Your task to perform on an android device: What's on my calendar tomorrow? Image 0: 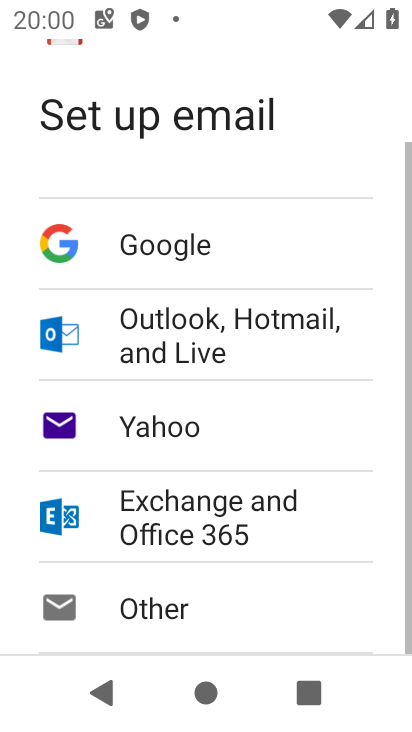
Step 0: press home button
Your task to perform on an android device: What's on my calendar tomorrow? Image 1: 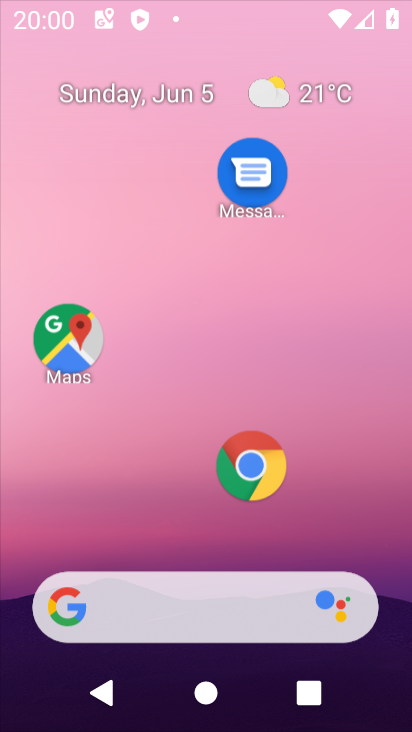
Step 1: drag from (224, 603) to (326, 246)
Your task to perform on an android device: What's on my calendar tomorrow? Image 2: 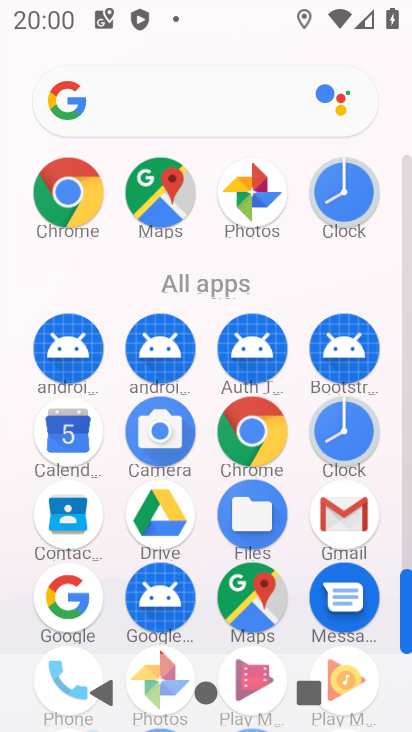
Step 2: click (70, 448)
Your task to perform on an android device: What's on my calendar tomorrow? Image 3: 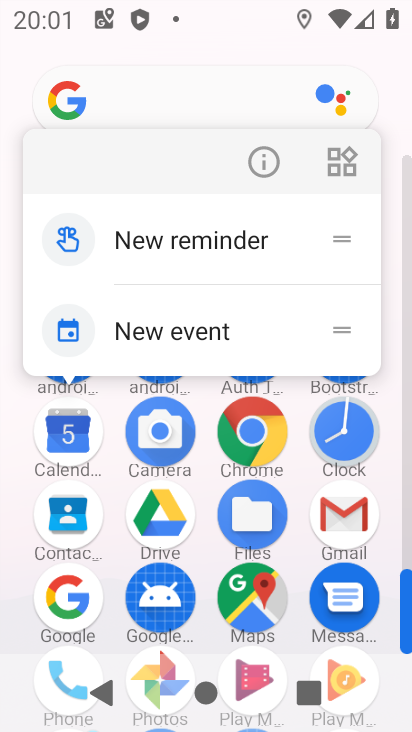
Step 3: click (278, 166)
Your task to perform on an android device: What's on my calendar tomorrow? Image 4: 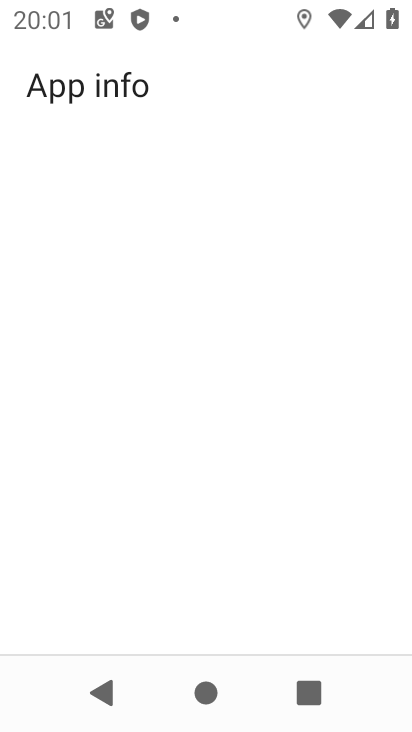
Step 4: drag from (191, 580) to (270, 105)
Your task to perform on an android device: What's on my calendar tomorrow? Image 5: 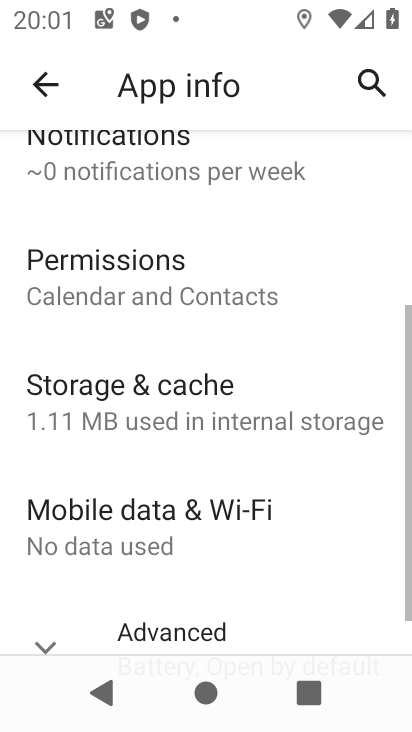
Step 5: drag from (95, 329) to (282, 701)
Your task to perform on an android device: What's on my calendar tomorrow? Image 6: 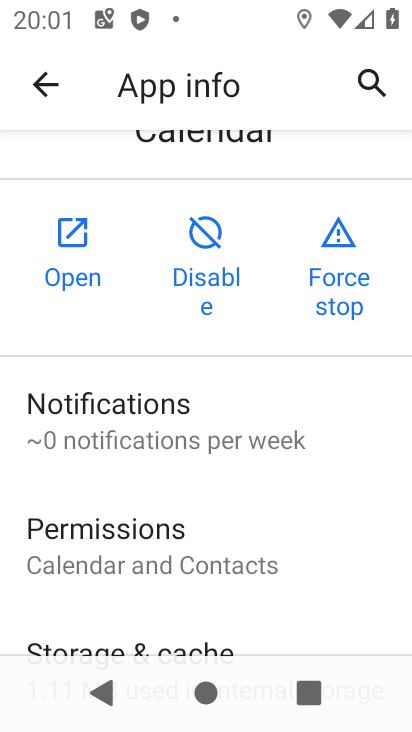
Step 6: click (90, 274)
Your task to perform on an android device: What's on my calendar tomorrow? Image 7: 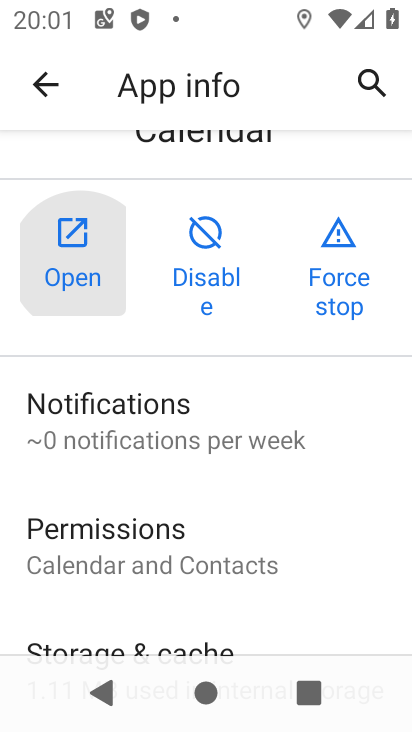
Step 7: click (90, 274)
Your task to perform on an android device: What's on my calendar tomorrow? Image 8: 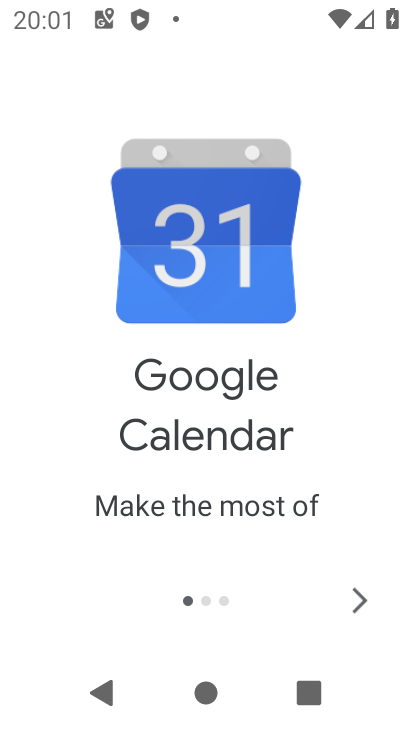
Step 8: click (352, 606)
Your task to perform on an android device: What's on my calendar tomorrow? Image 9: 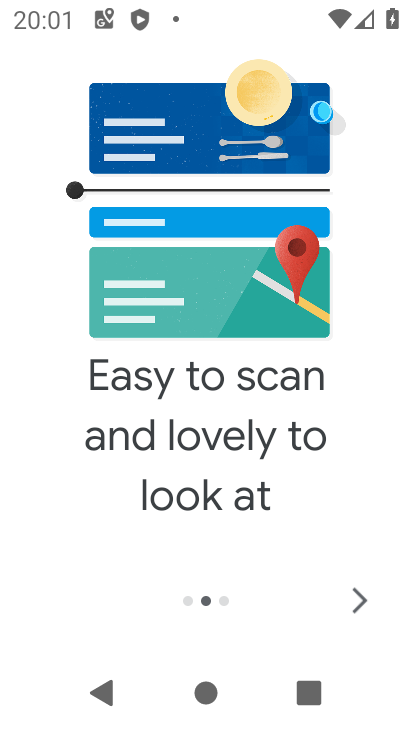
Step 9: click (361, 593)
Your task to perform on an android device: What's on my calendar tomorrow? Image 10: 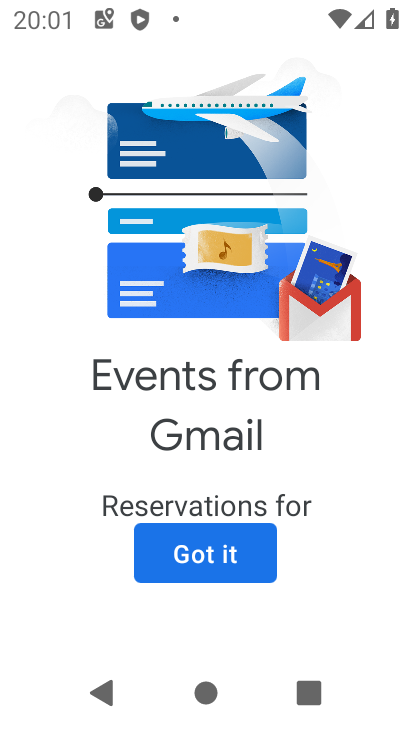
Step 10: click (358, 589)
Your task to perform on an android device: What's on my calendar tomorrow? Image 11: 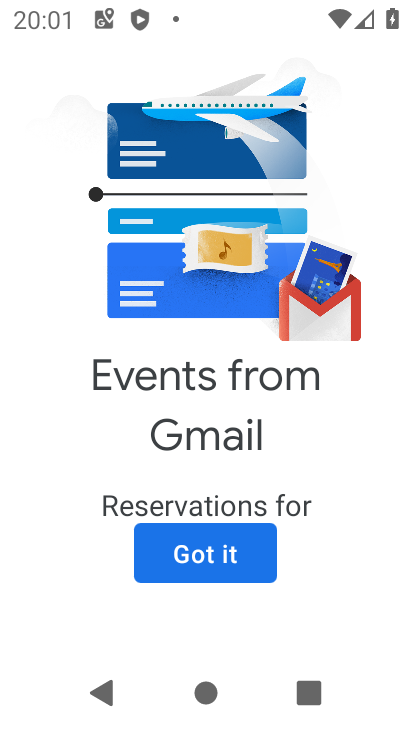
Step 11: click (263, 555)
Your task to perform on an android device: What's on my calendar tomorrow? Image 12: 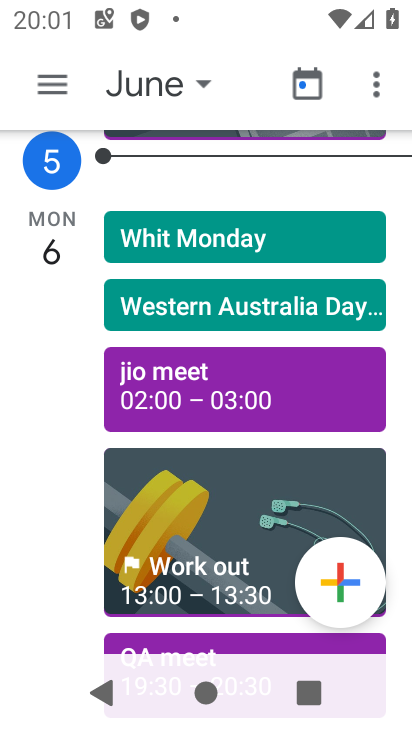
Step 12: click (150, 114)
Your task to perform on an android device: What's on my calendar tomorrow? Image 13: 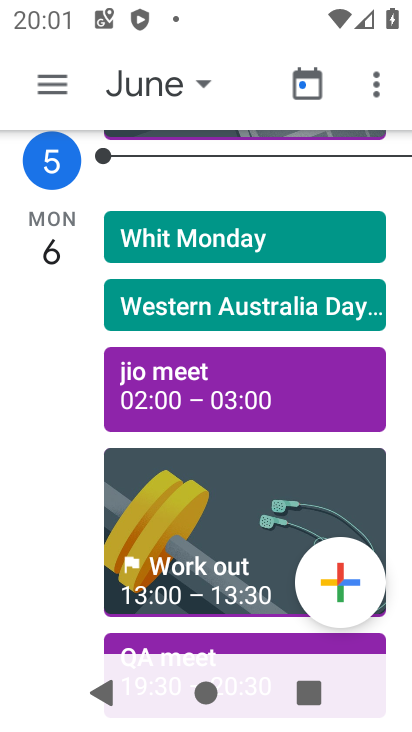
Step 13: click (174, 74)
Your task to perform on an android device: What's on my calendar tomorrow? Image 14: 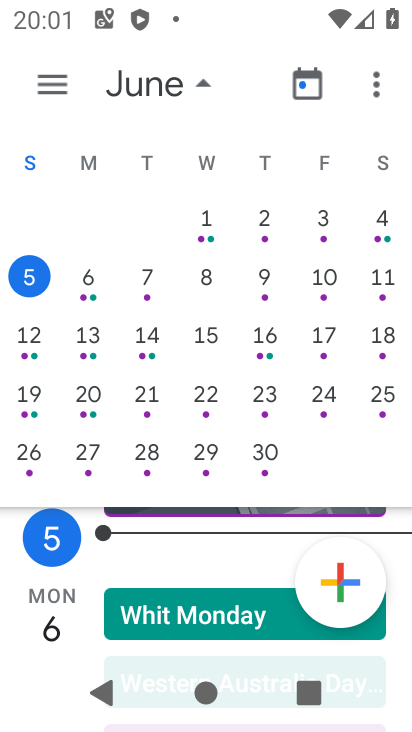
Step 14: click (82, 272)
Your task to perform on an android device: What's on my calendar tomorrow? Image 15: 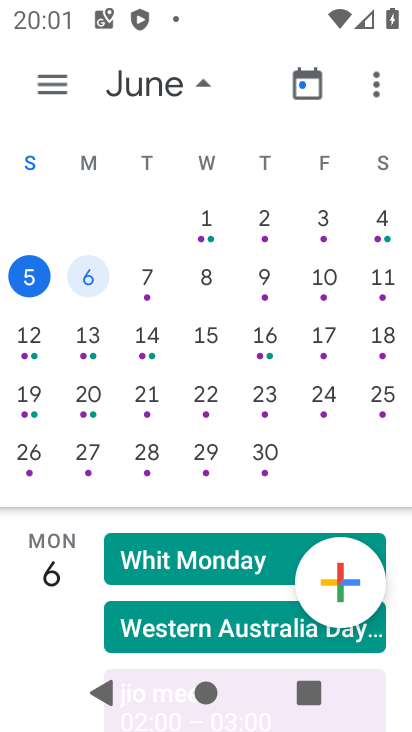
Step 15: task complete